Your task to perform on an android device: delete browsing data in the chrome app Image 0: 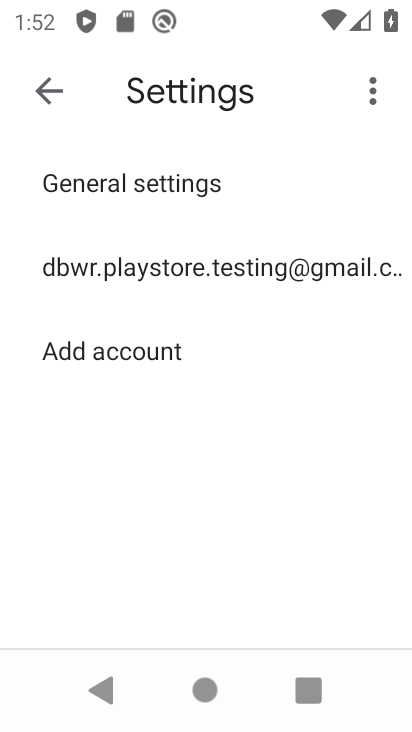
Step 0: press home button
Your task to perform on an android device: delete browsing data in the chrome app Image 1: 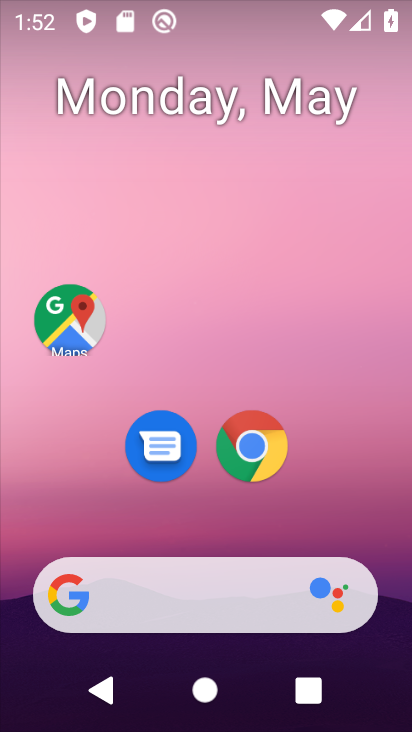
Step 1: drag from (313, 511) to (344, 161)
Your task to perform on an android device: delete browsing data in the chrome app Image 2: 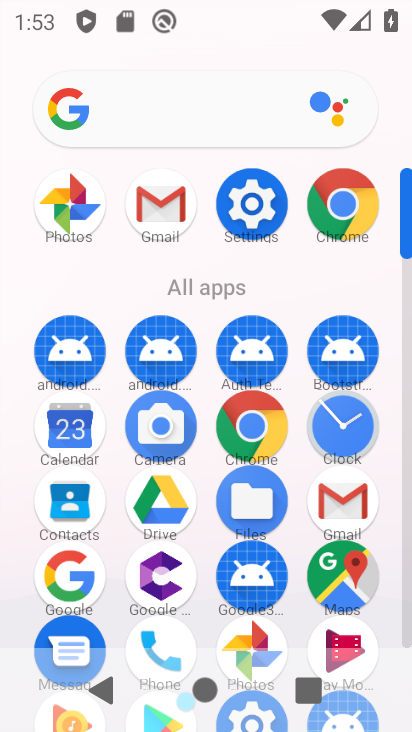
Step 2: click (262, 438)
Your task to perform on an android device: delete browsing data in the chrome app Image 3: 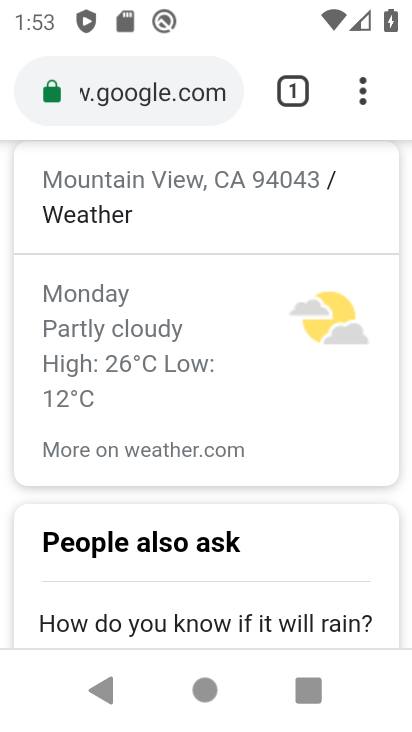
Step 3: drag from (364, 105) to (210, 197)
Your task to perform on an android device: delete browsing data in the chrome app Image 4: 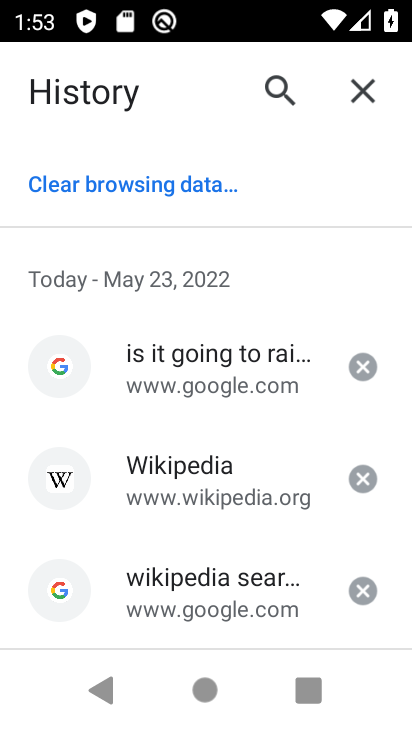
Step 4: click (194, 174)
Your task to perform on an android device: delete browsing data in the chrome app Image 5: 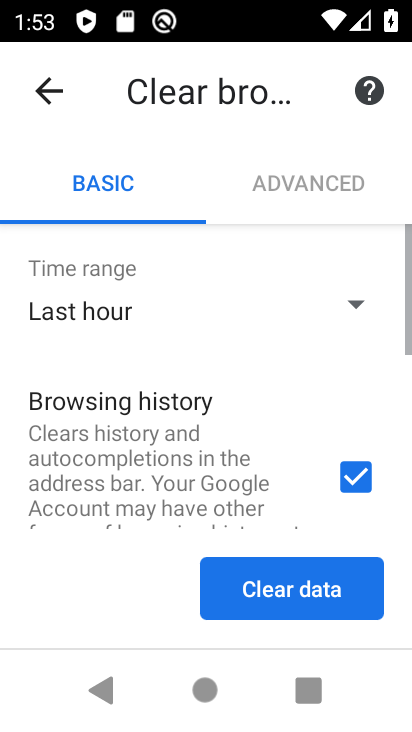
Step 5: click (295, 583)
Your task to perform on an android device: delete browsing data in the chrome app Image 6: 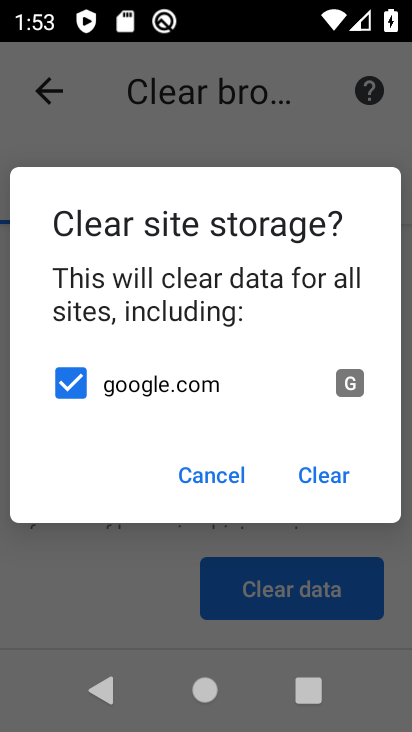
Step 6: click (330, 480)
Your task to perform on an android device: delete browsing data in the chrome app Image 7: 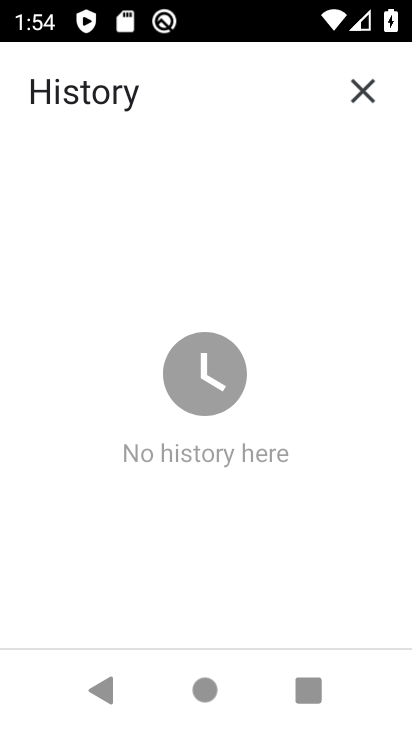
Step 7: task complete